Your task to perform on an android device: Open settings on Google Maps Image 0: 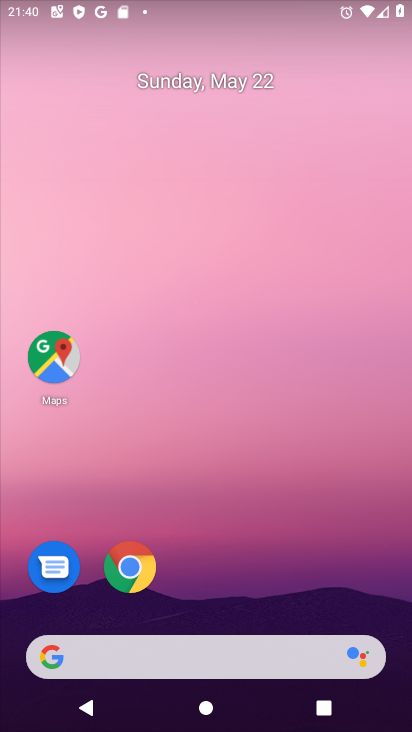
Step 0: click (57, 356)
Your task to perform on an android device: Open settings on Google Maps Image 1: 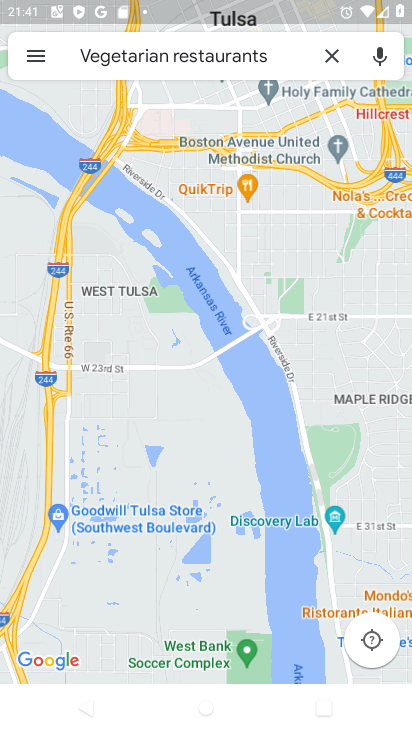
Step 1: click (327, 53)
Your task to perform on an android device: Open settings on Google Maps Image 2: 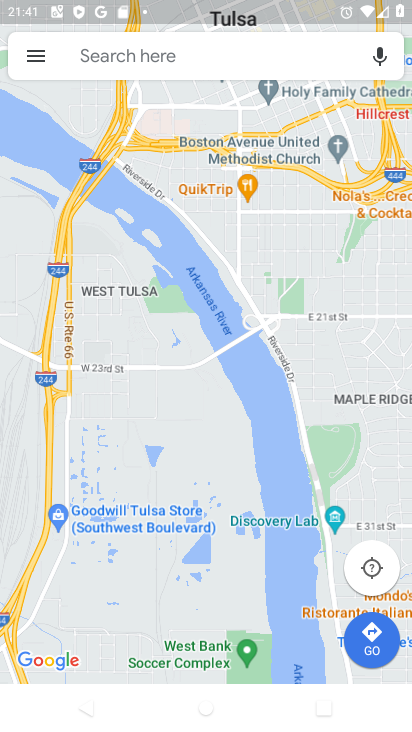
Step 2: click (32, 55)
Your task to perform on an android device: Open settings on Google Maps Image 3: 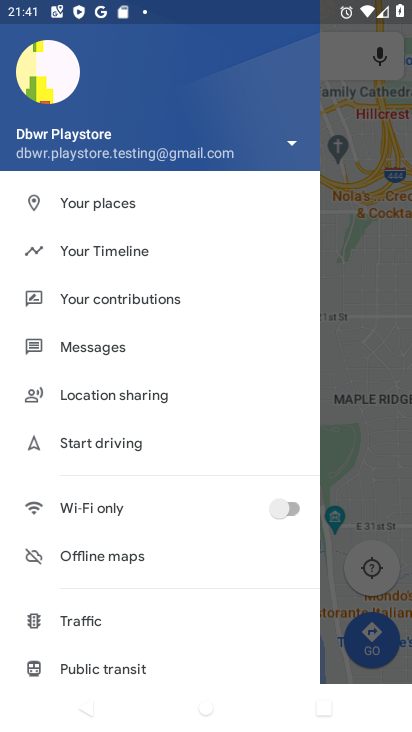
Step 3: drag from (98, 550) to (188, 18)
Your task to perform on an android device: Open settings on Google Maps Image 4: 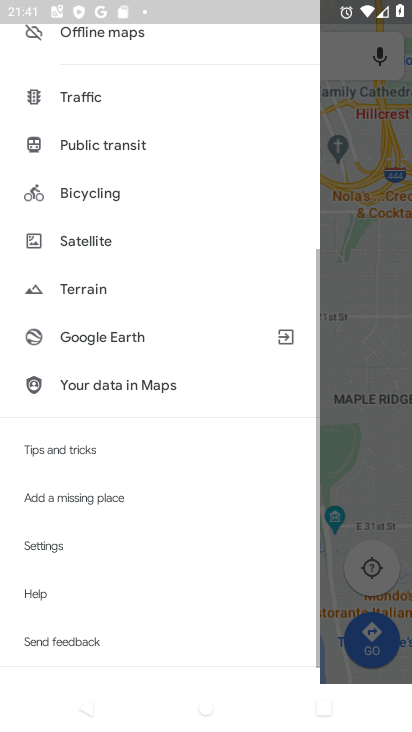
Step 4: drag from (168, 460) to (217, 218)
Your task to perform on an android device: Open settings on Google Maps Image 5: 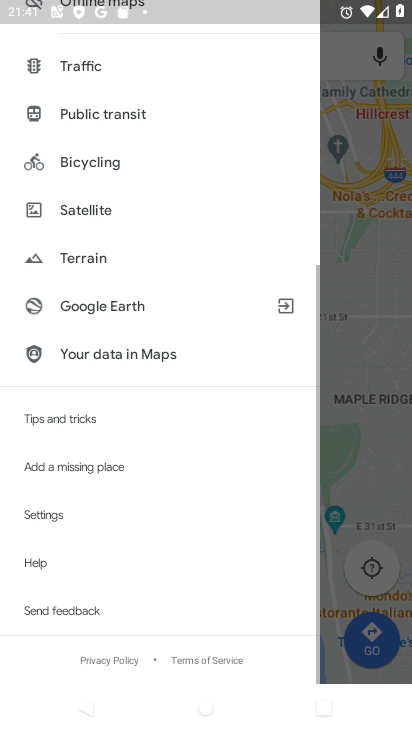
Step 5: drag from (152, 486) to (48, 559)
Your task to perform on an android device: Open settings on Google Maps Image 6: 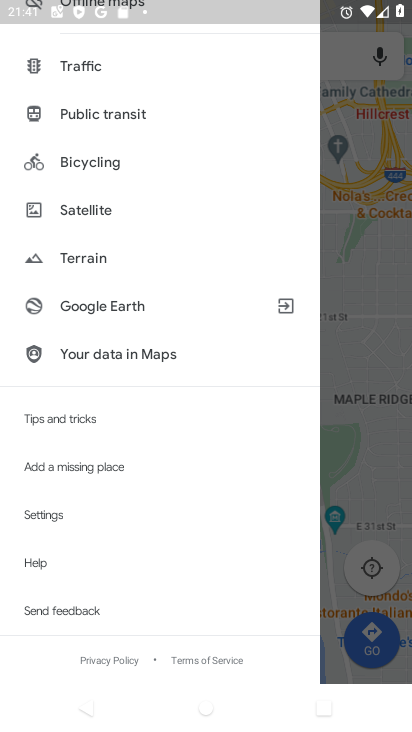
Step 6: click (56, 514)
Your task to perform on an android device: Open settings on Google Maps Image 7: 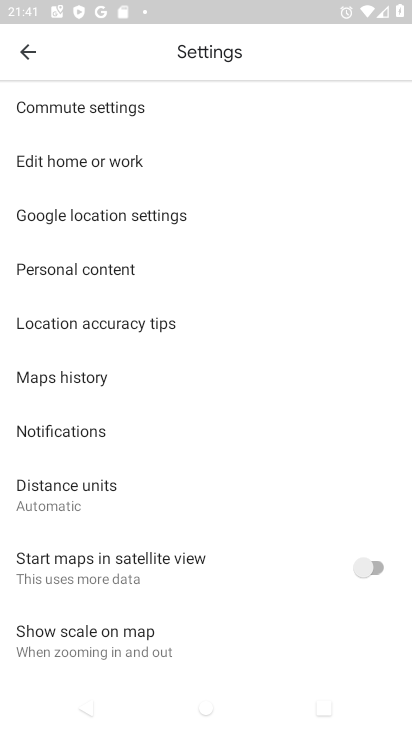
Step 7: task complete